Your task to perform on an android device: turn off translation in the chrome app Image 0: 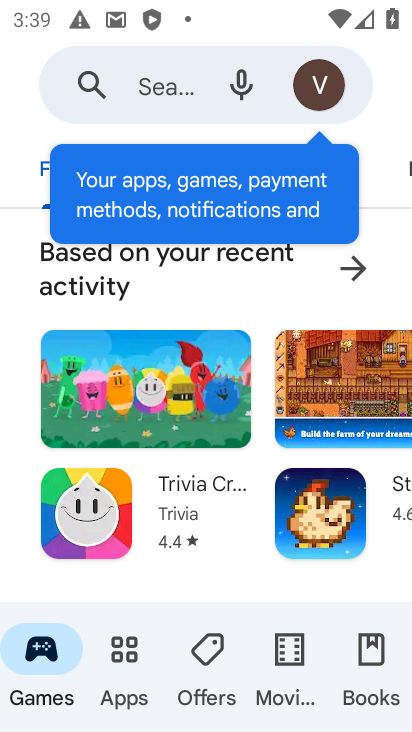
Step 0: press home button
Your task to perform on an android device: turn off translation in the chrome app Image 1: 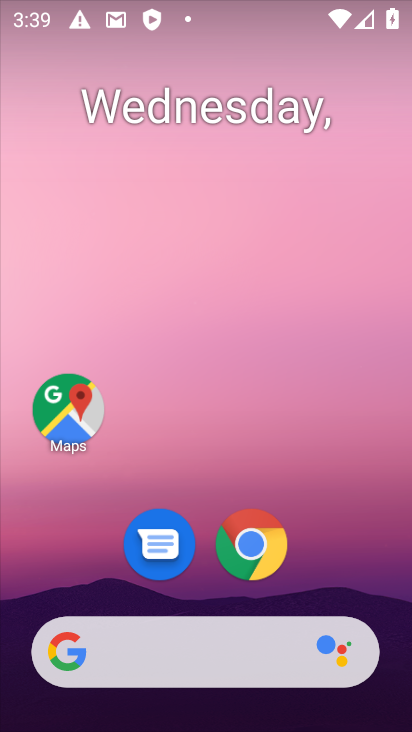
Step 1: click (250, 539)
Your task to perform on an android device: turn off translation in the chrome app Image 2: 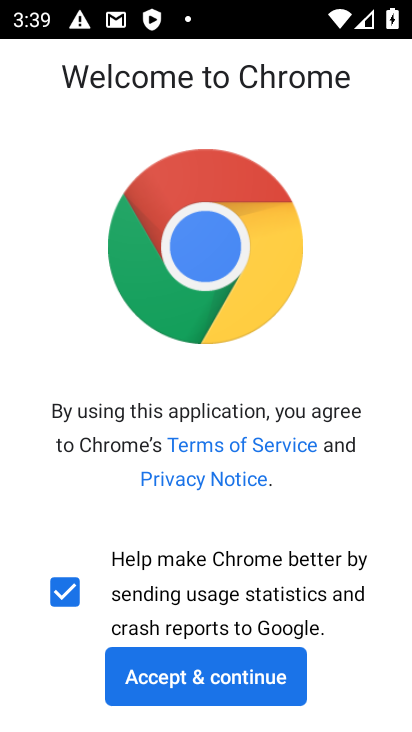
Step 2: click (159, 658)
Your task to perform on an android device: turn off translation in the chrome app Image 3: 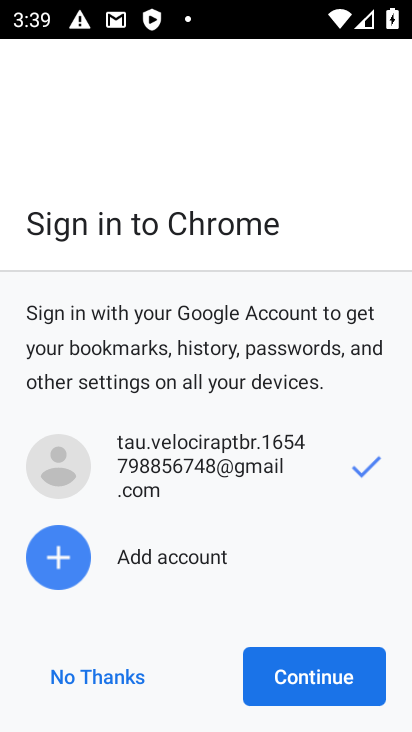
Step 3: click (352, 674)
Your task to perform on an android device: turn off translation in the chrome app Image 4: 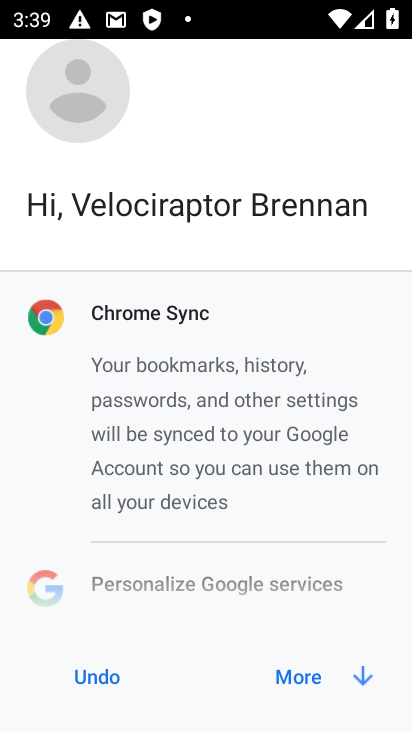
Step 4: click (331, 678)
Your task to perform on an android device: turn off translation in the chrome app Image 5: 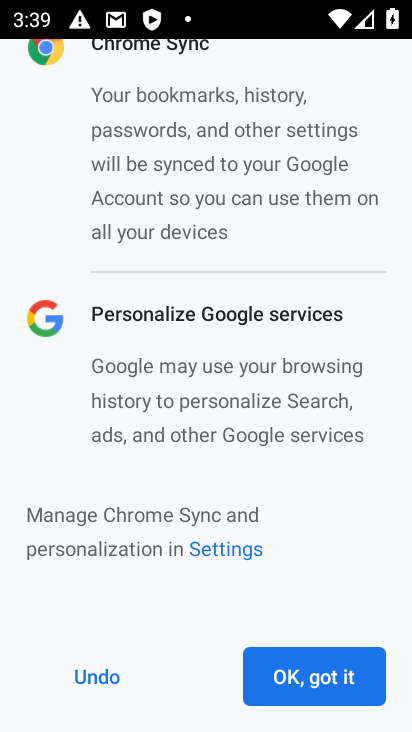
Step 5: click (331, 678)
Your task to perform on an android device: turn off translation in the chrome app Image 6: 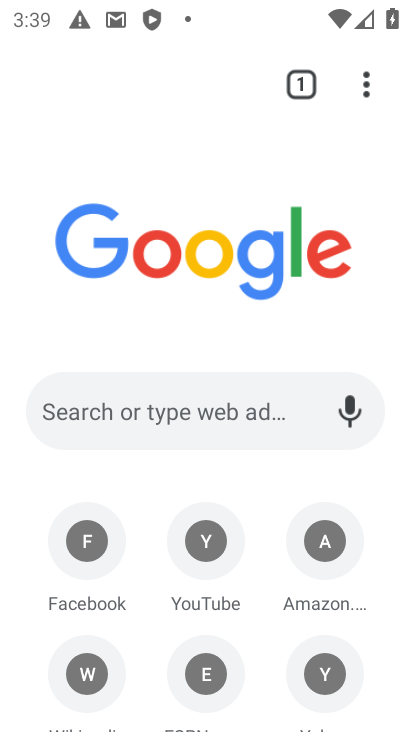
Step 6: drag from (368, 81) to (123, 597)
Your task to perform on an android device: turn off translation in the chrome app Image 7: 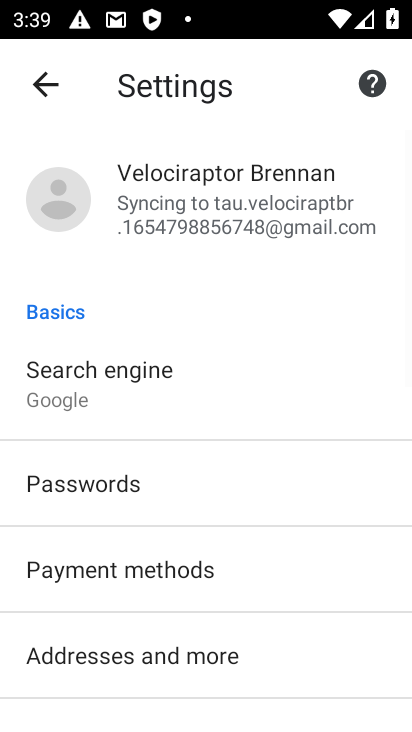
Step 7: drag from (310, 682) to (324, 326)
Your task to perform on an android device: turn off translation in the chrome app Image 8: 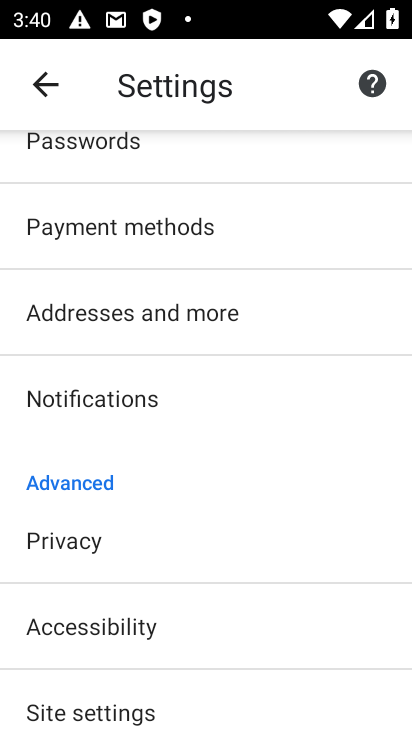
Step 8: click (115, 707)
Your task to perform on an android device: turn off translation in the chrome app Image 9: 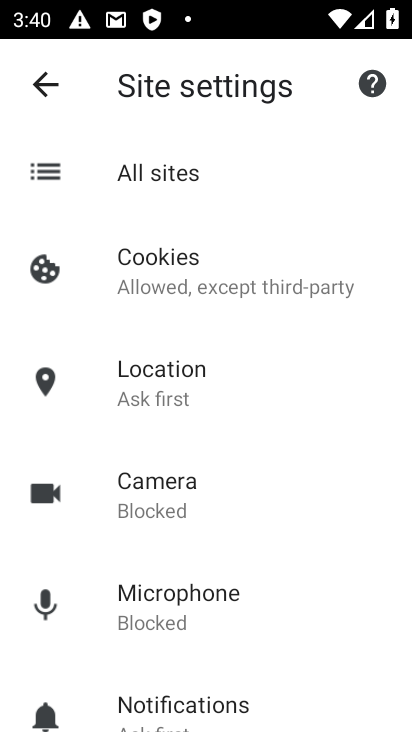
Step 9: drag from (275, 664) to (323, 200)
Your task to perform on an android device: turn off translation in the chrome app Image 10: 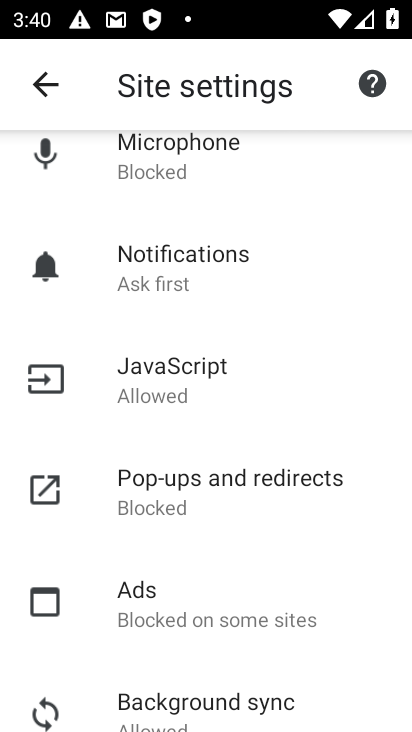
Step 10: drag from (261, 608) to (288, 377)
Your task to perform on an android device: turn off translation in the chrome app Image 11: 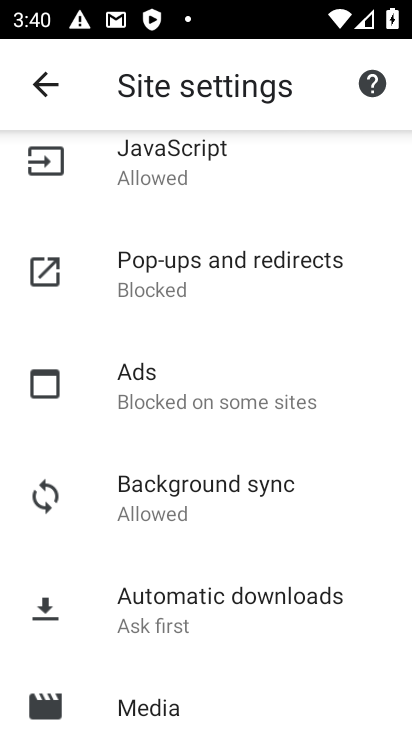
Step 11: click (40, 76)
Your task to perform on an android device: turn off translation in the chrome app Image 12: 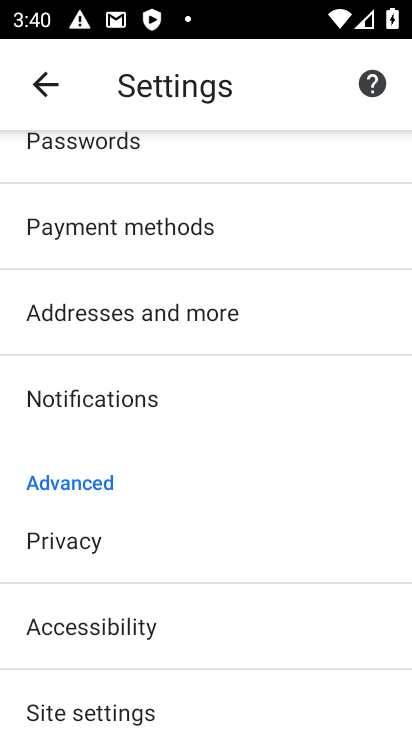
Step 12: drag from (197, 592) to (199, 335)
Your task to perform on an android device: turn off translation in the chrome app Image 13: 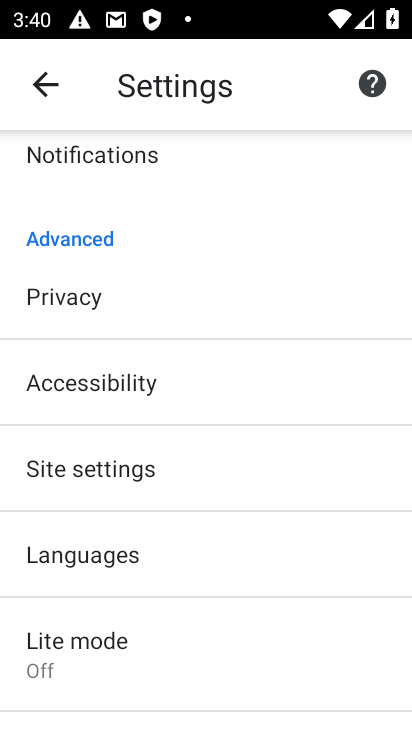
Step 13: click (95, 550)
Your task to perform on an android device: turn off translation in the chrome app Image 14: 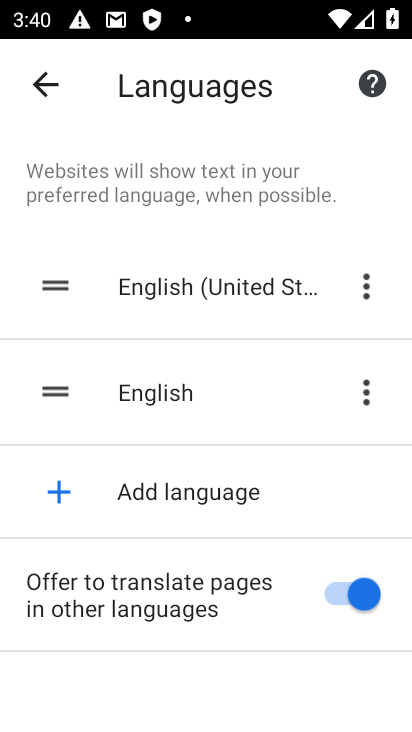
Step 14: click (329, 591)
Your task to perform on an android device: turn off translation in the chrome app Image 15: 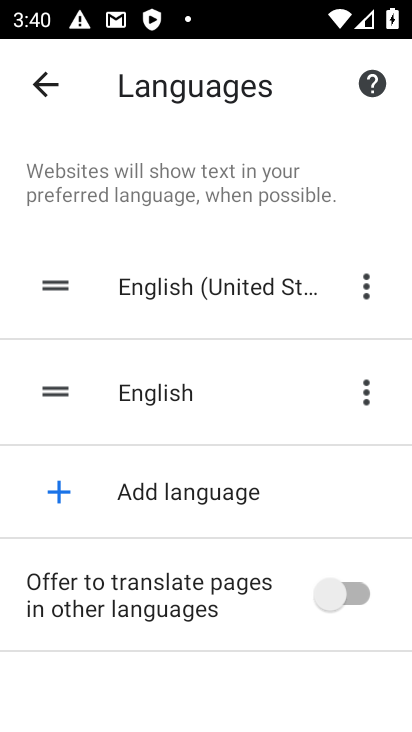
Step 15: task complete